Your task to perform on an android device: see sites visited before in the chrome app Image 0: 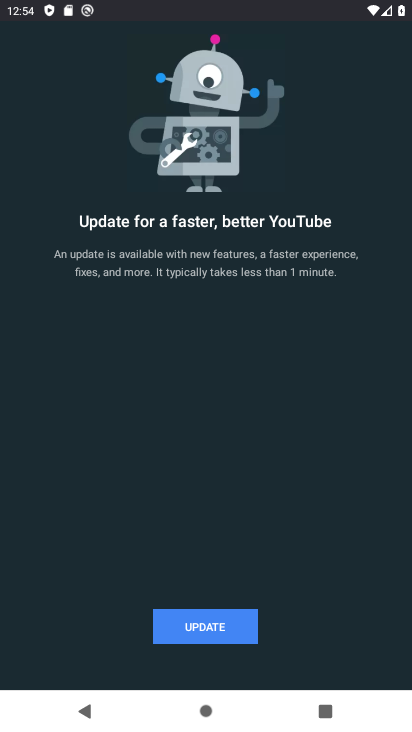
Step 0: press home button
Your task to perform on an android device: see sites visited before in the chrome app Image 1: 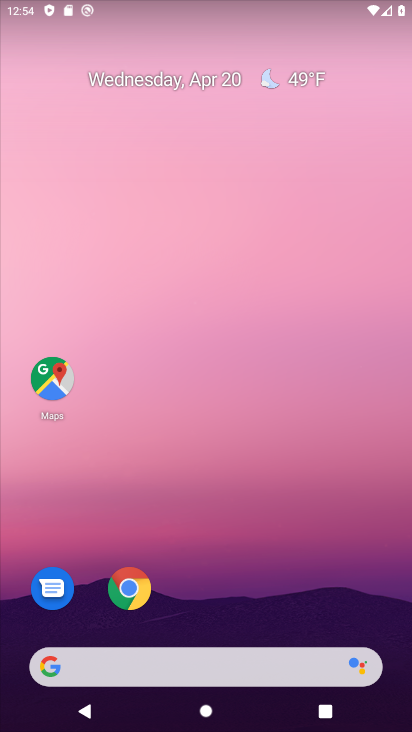
Step 1: drag from (183, 666) to (304, 85)
Your task to perform on an android device: see sites visited before in the chrome app Image 2: 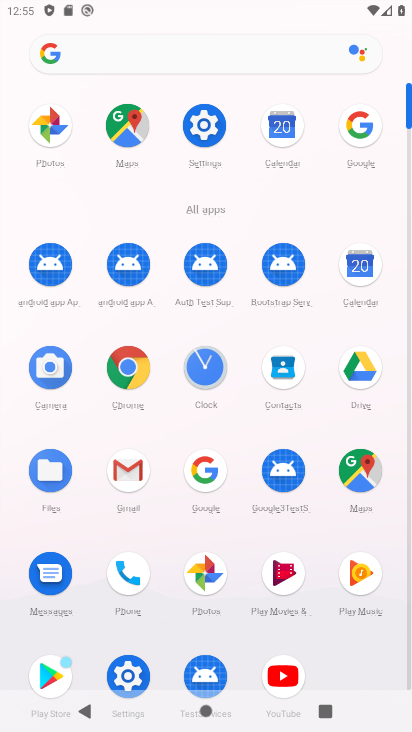
Step 2: click (128, 372)
Your task to perform on an android device: see sites visited before in the chrome app Image 3: 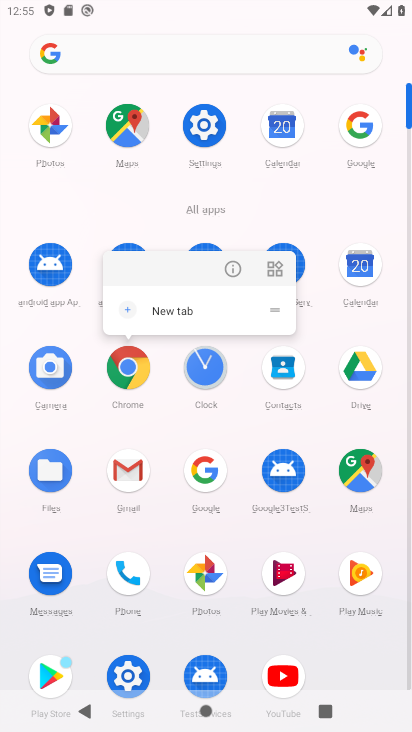
Step 3: click (134, 366)
Your task to perform on an android device: see sites visited before in the chrome app Image 4: 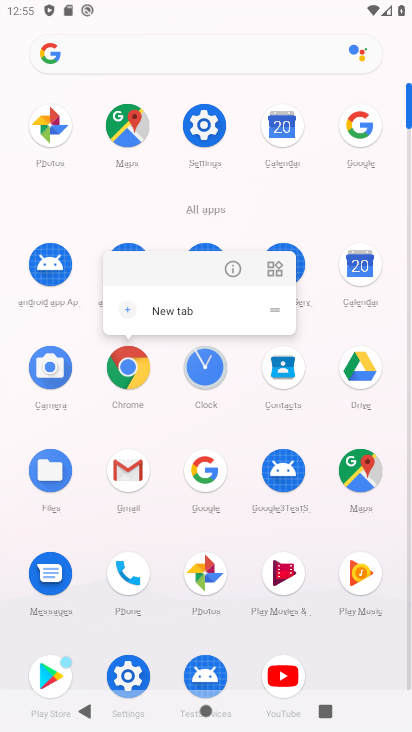
Step 4: click (128, 370)
Your task to perform on an android device: see sites visited before in the chrome app Image 5: 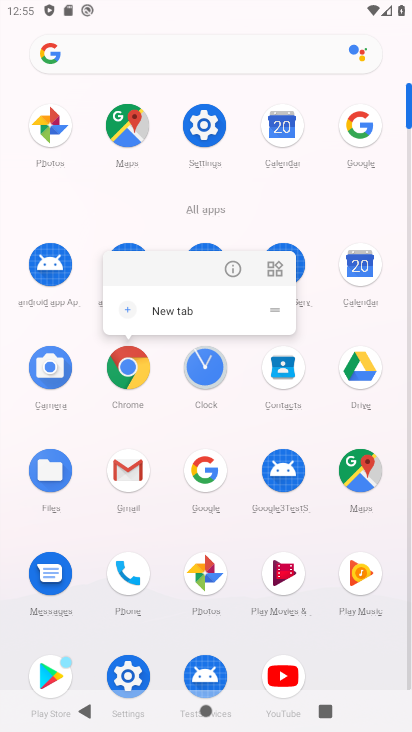
Step 5: click (126, 372)
Your task to perform on an android device: see sites visited before in the chrome app Image 6: 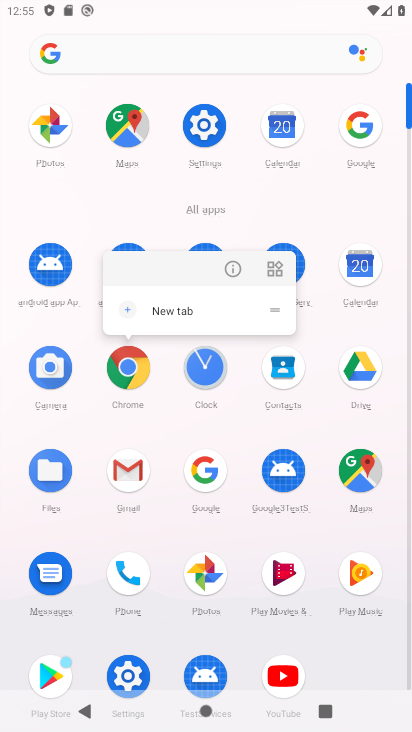
Step 6: click (126, 383)
Your task to perform on an android device: see sites visited before in the chrome app Image 7: 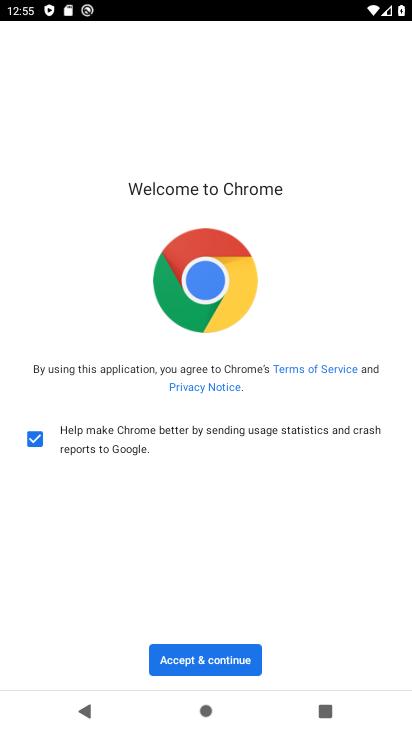
Step 7: click (188, 666)
Your task to perform on an android device: see sites visited before in the chrome app Image 8: 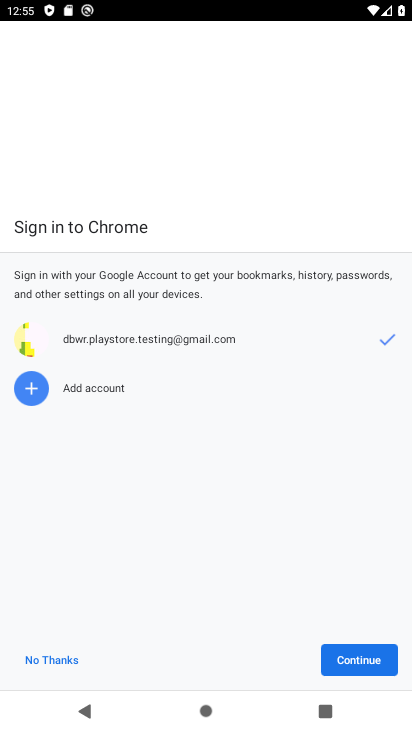
Step 8: click (347, 665)
Your task to perform on an android device: see sites visited before in the chrome app Image 9: 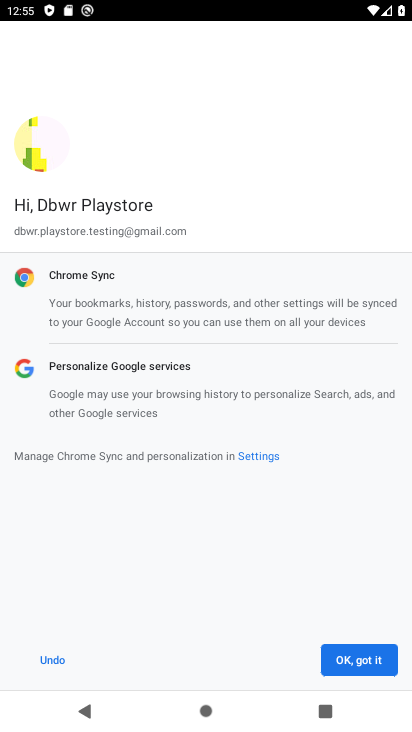
Step 9: click (347, 665)
Your task to perform on an android device: see sites visited before in the chrome app Image 10: 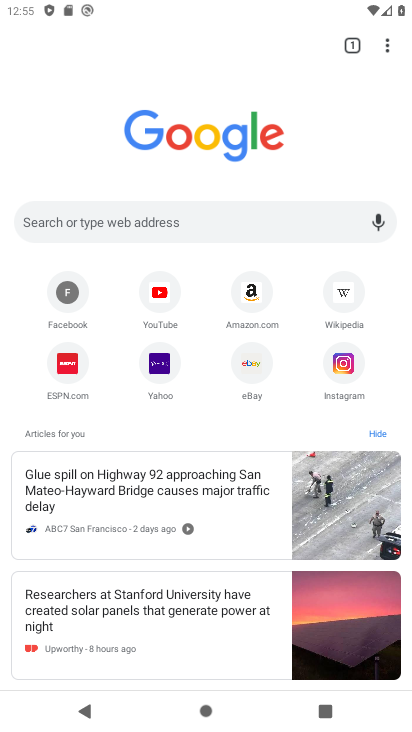
Step 10: click (388, 48)
Your task to perform on an android device: see sites visited before in the chrome app Image 11: 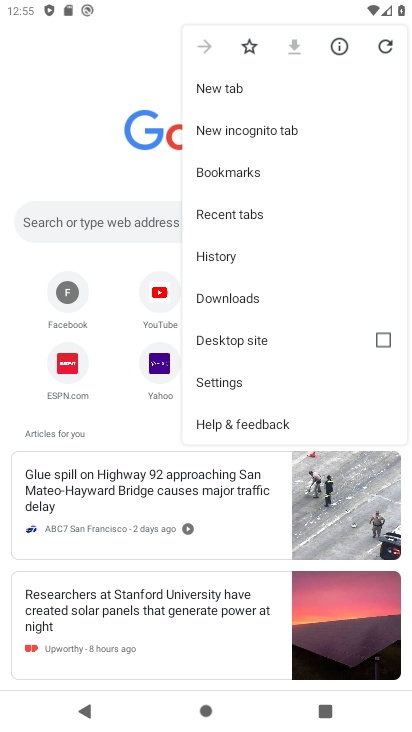
Step 11: click (244, 208)
Your task to perform on an android device: see sites visited before in the chrome app Image 12: 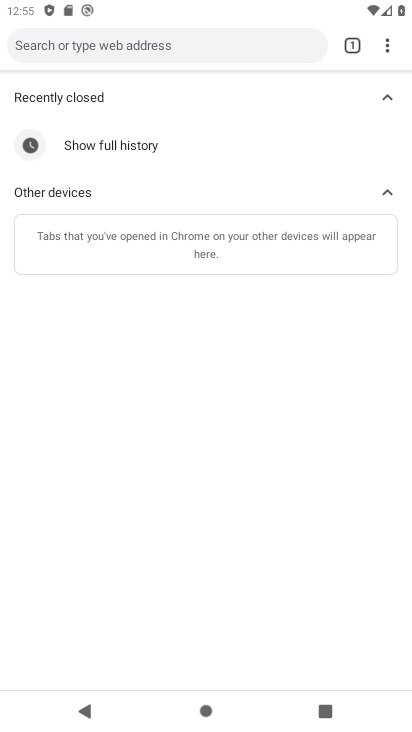
Step 12: task complete